Your task to perform on an android device: Open maps Image 0: 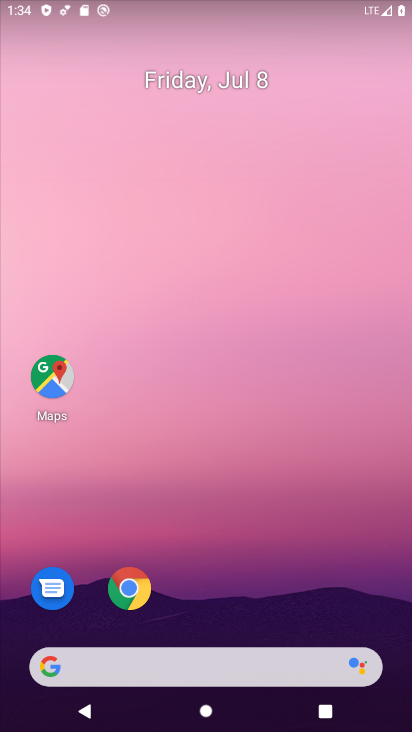
Step 0: click (63, 372)
Your task to perform on an android device: Open maps Image 1: 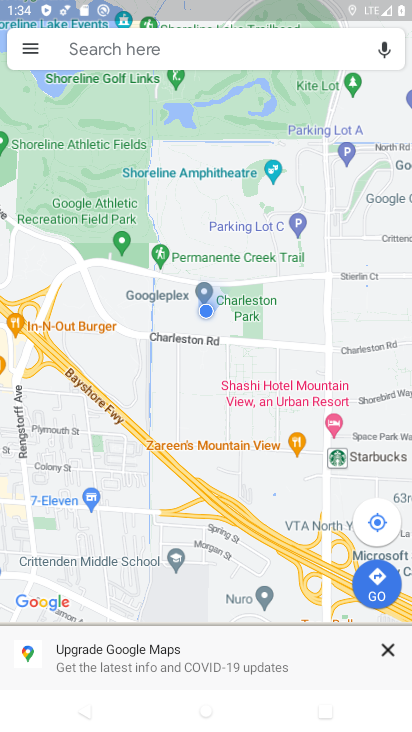
Step 1: task complete